Your task to perform on an android device: toggle wifi Image 0: 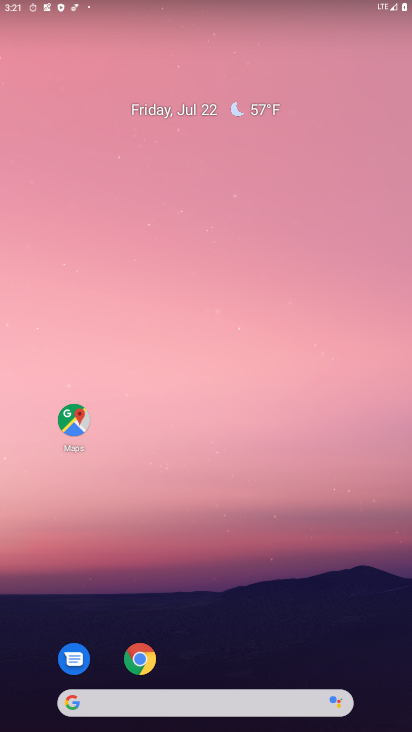
Step 0: drag from (275, 649) to (278, 3)
Your task to perform on an android device: toggle wifi Image 1: 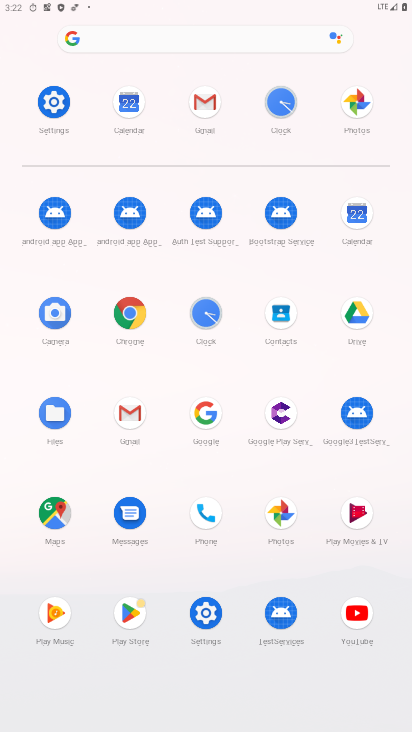
Step 1: click (51, 111)
Your task to perform on an android device: toggle wifi Image 2: 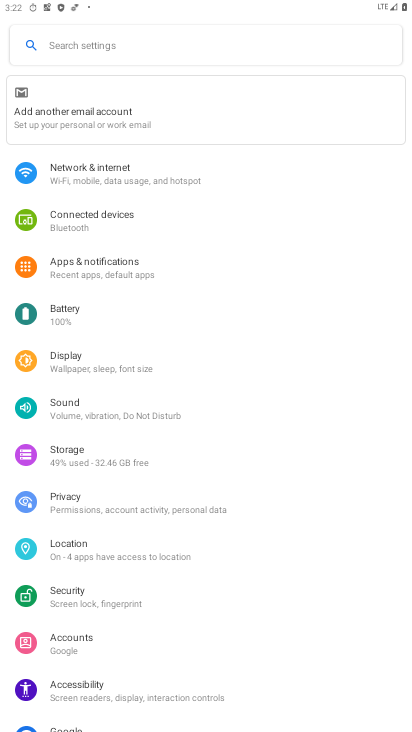
Step 2: click (44, 176)
Your task to perform on an android device: toggle wifi Image 3: 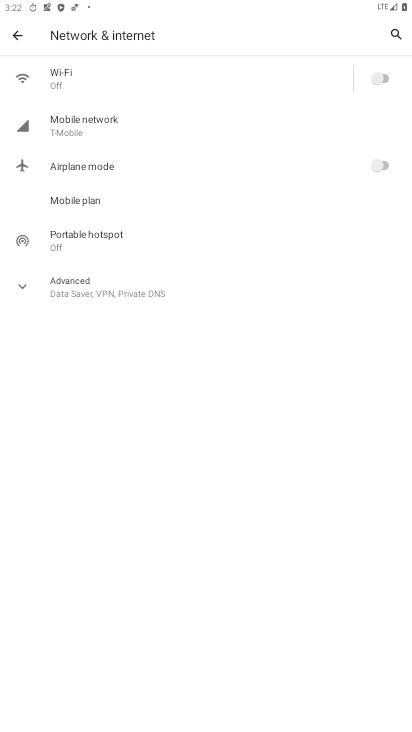
Step 3: click (387, 80)
Your task to perform on an android device: toggle wifi Image 4: 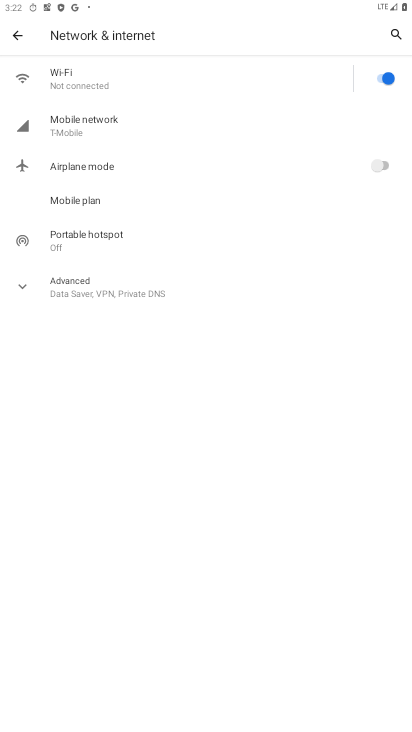
Step 4: task complete